Your task to perform on an android device: Go to location settings Image 0: 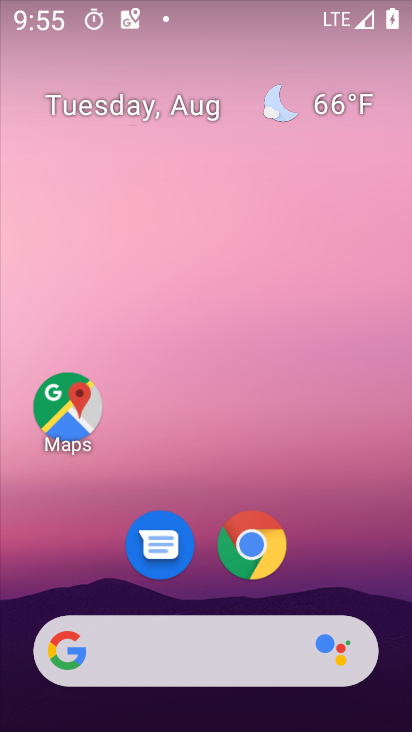
Step 0: drag from (238, 397) to (260, 130)
Your task to perform on an android device: Go to location settings Image 1: 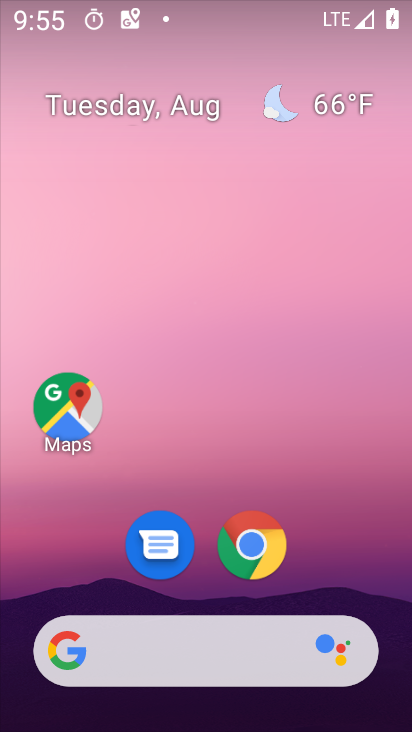
Step 1: drag from (243, 514) to (235, 95)
Your task to perform on an android device: Go to location settings Image 2: 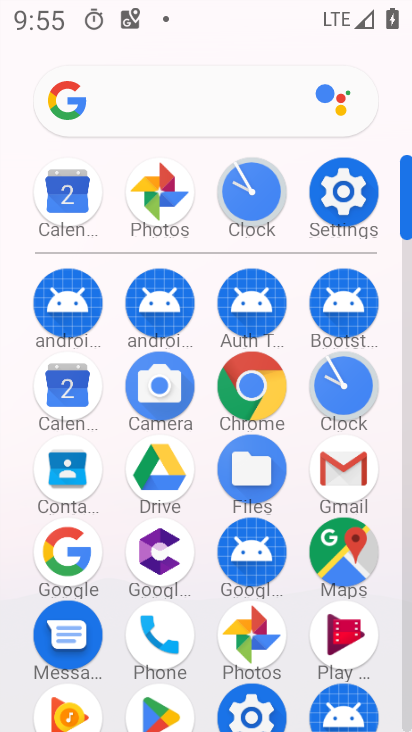
Step 2: click (341, 212)
Your task to perform on an android device: Go to location settings Image 3: 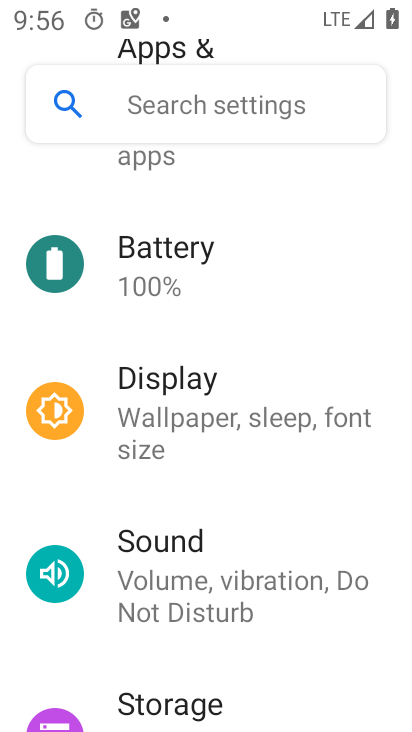
Step 3: drag from (188, 524) to (215, 178)
Your task to perform on an android device: Go to location settings Image 4: 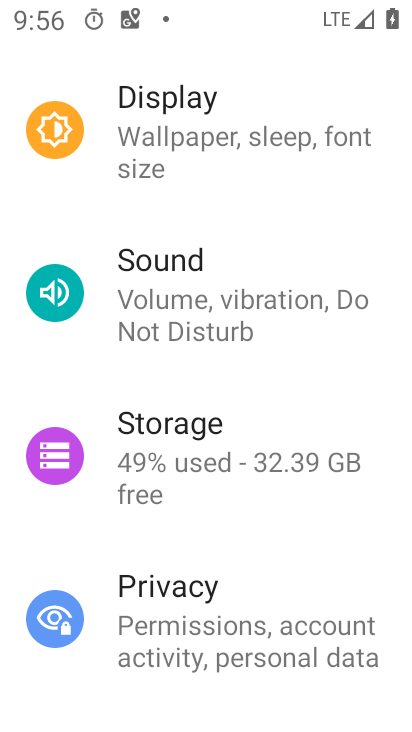
Step 4: drag from (161, 574) to (222, 122)
Your task to perform on an android device: Go to location settings Image 5: 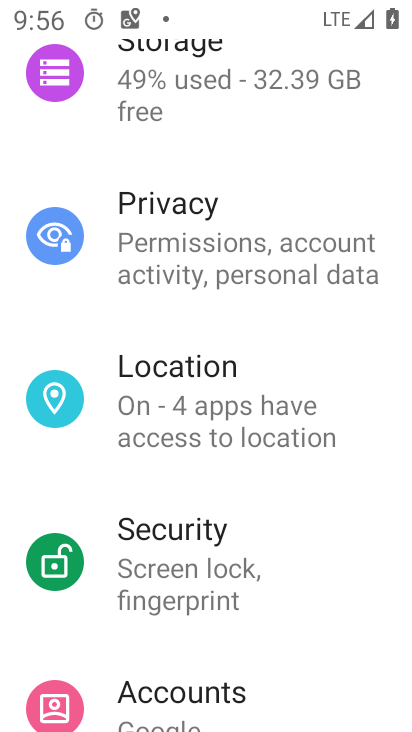
Step 5: click (204, 424)
Your task to perform on an android device: Go to location settings Image 6: 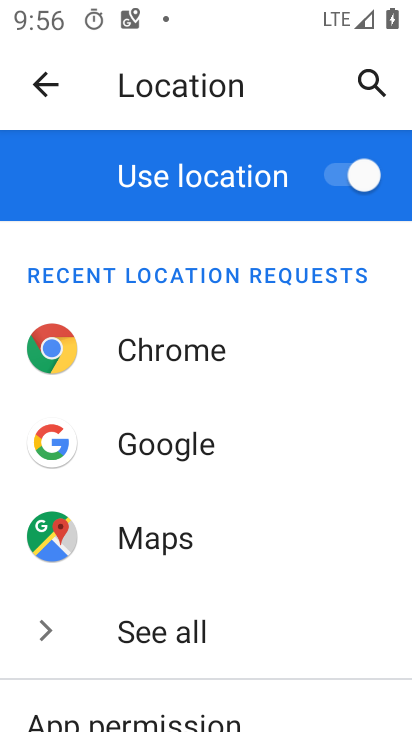
Step 6: task complete